Your task to perform on an android device: turn on improve location accuracy Image 0: 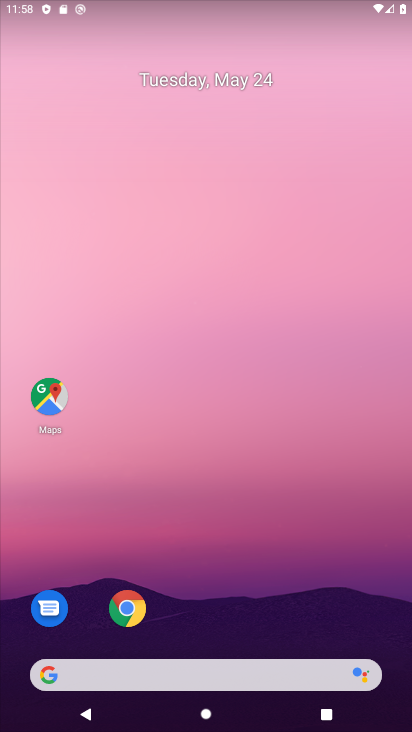
Step 0: drag from (316, 600) to (261, 154)
Your task to perform on an android device: turn on improve location accuracy Image 1: 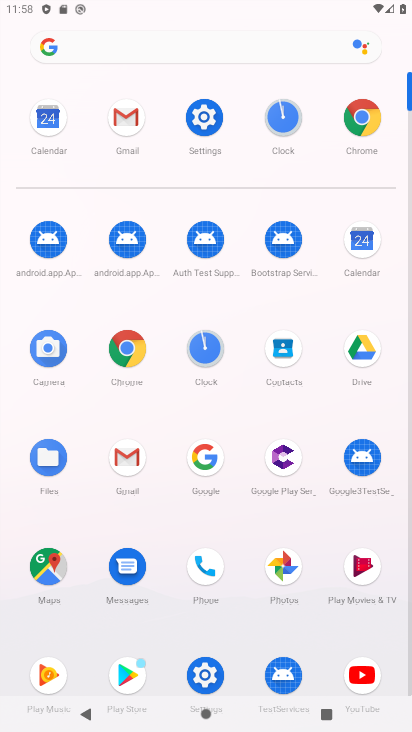
Step 1: click (205, 115)
Your task to perform on an android device: turn on improve location accuracy Image 2: 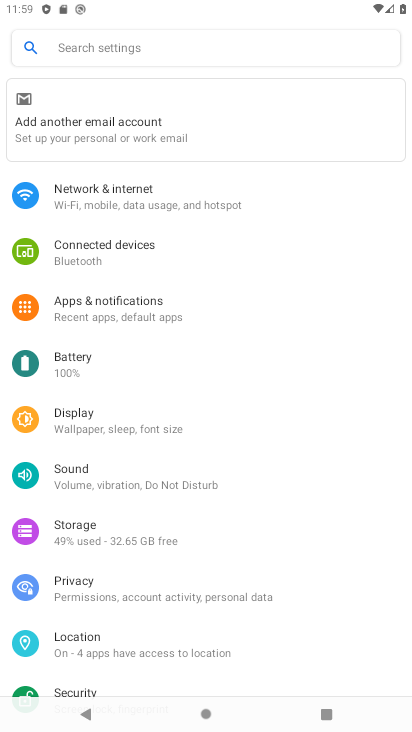
Step 2: click (131, 646)
Your task to perform on an android device: turn on improve location accuracy Image 3: 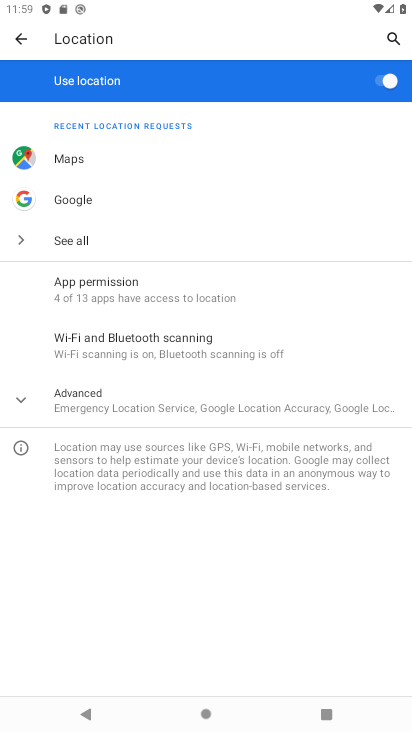
Step 3: click (145, 397)
Your task to perform on an android device: turn on improve location accuracy Image 4: 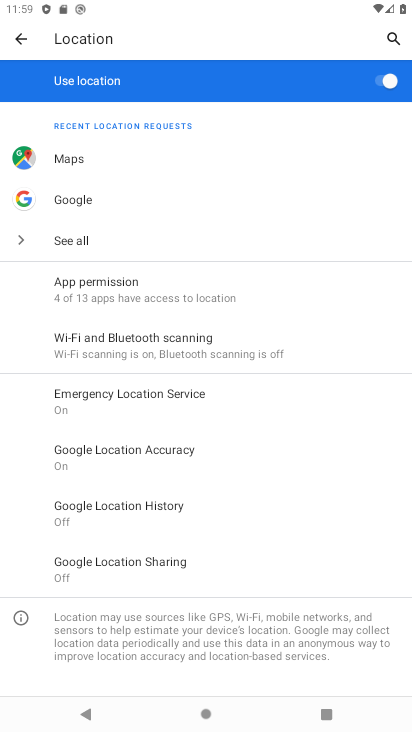
Step 4: click (216, 442)
Your task to perform on an android device: turn on improve location accuracy Image 5: 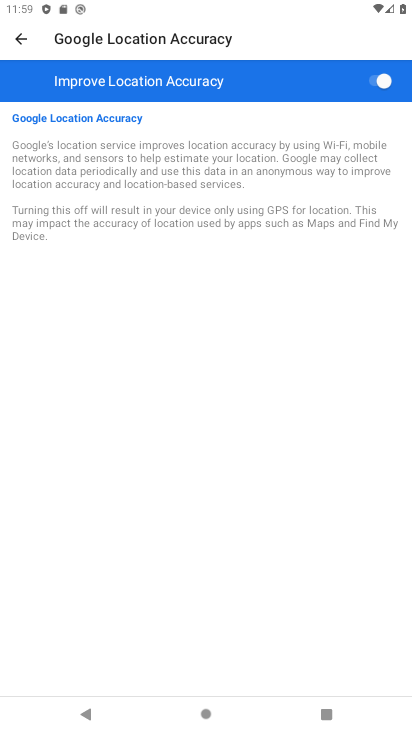
Step 5: task complete